Your task to perform on an android device: turn on bluetooth scan Image 0: 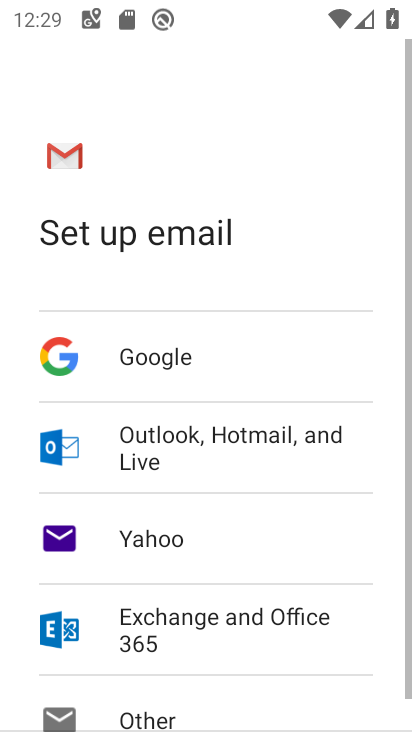
Step 0: press home button
Your task to perform on an android device: turn on bluetooth scan Image 1: 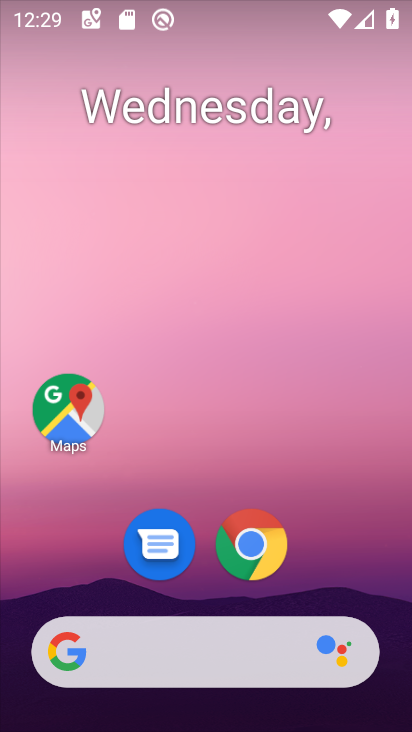
Step 1: drag from (157, 496) to (227, 336)
Your task to perform on an android device: turn on bluetooth scan Image 2: 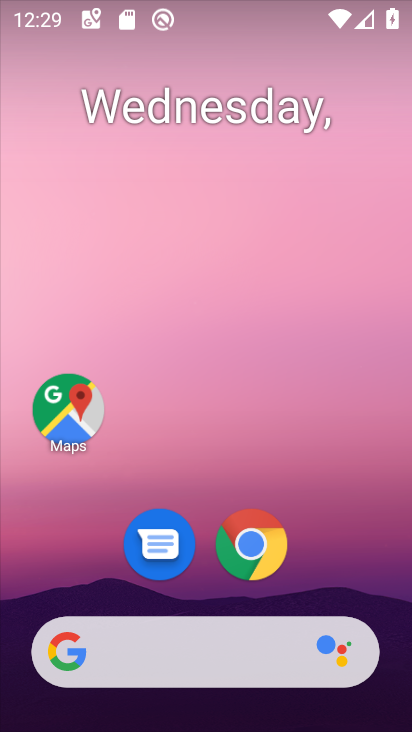
Step 2: drag from (261, 437) to (250, 69)
Your task to perform on an android device: turn on bluetooth scan Image 3: 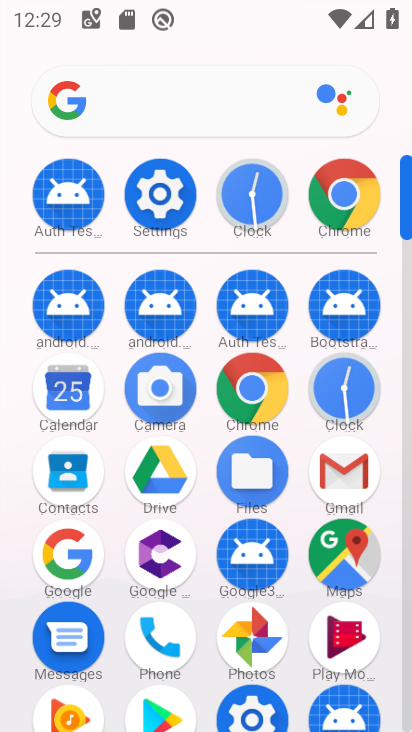
Step 3: drag from (207, 250) to (208, 100)
Your task to perform on an android device: turn on bluetooth scan Image 4: 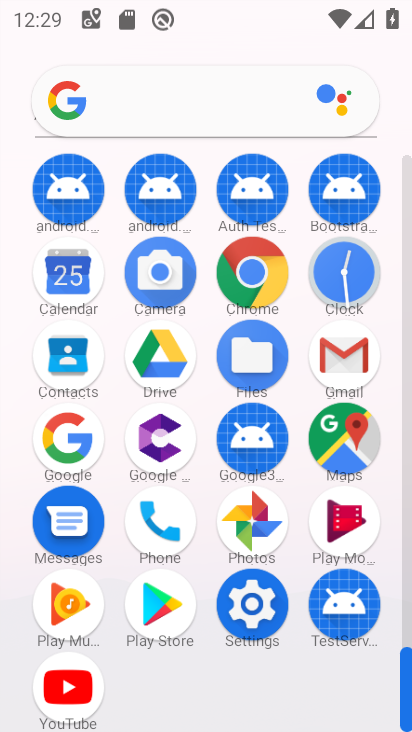
Step 4: click (262, 617)
Your task to perform on an android device: turn on bluetooth scan Image 5: 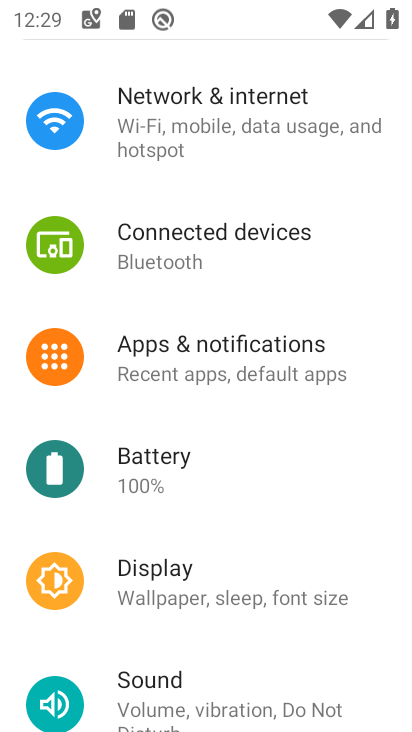
Step 5: drag from (231, 634) to (184, 183)
Your task to perform on an android device: turn on bluetooth scan Image 6: 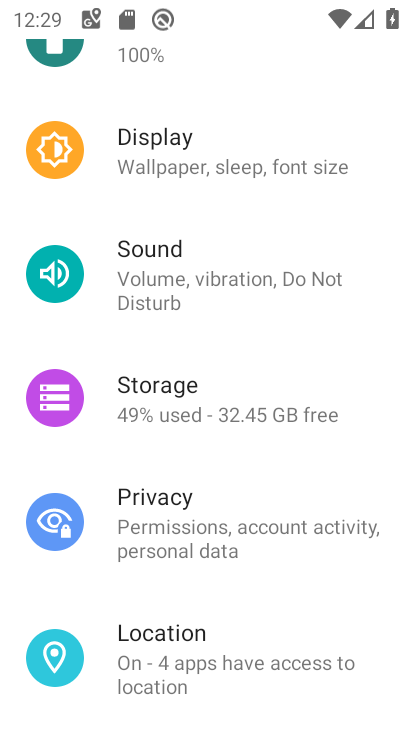
Step 6: drag from (202, 617) to (247, 241)
Your task to perform on an android device: turn on bluetooth scan Image 7: 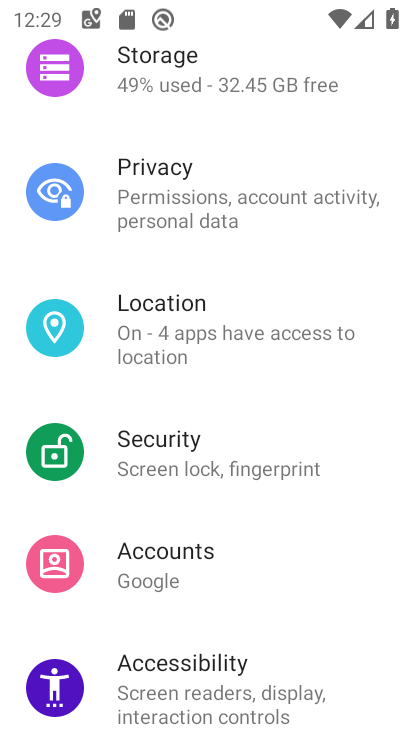
Step 7: drag from (265, 619) to (261, 114)
Your task to perform on an android device: turn on bluetooth scan Image 8: 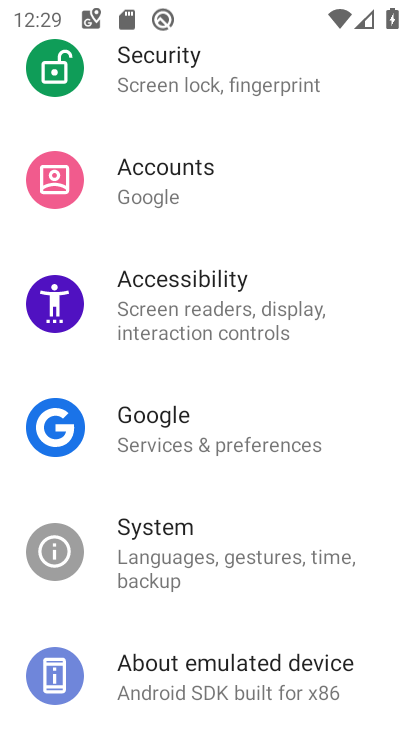
Step 8: drag from (223, 316) to (228, 562)
Your task to perform on an android device: turn on bluetooth scan Image 9: 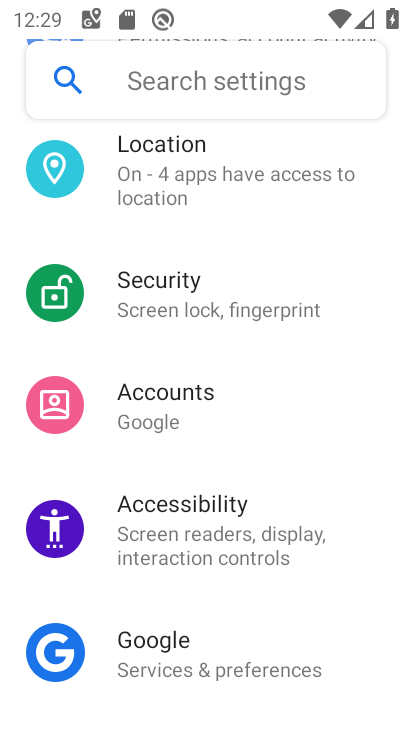
Step 9: click (243, 194)
Your task to perform on an android device: turn on bluetooth scan Image 10: 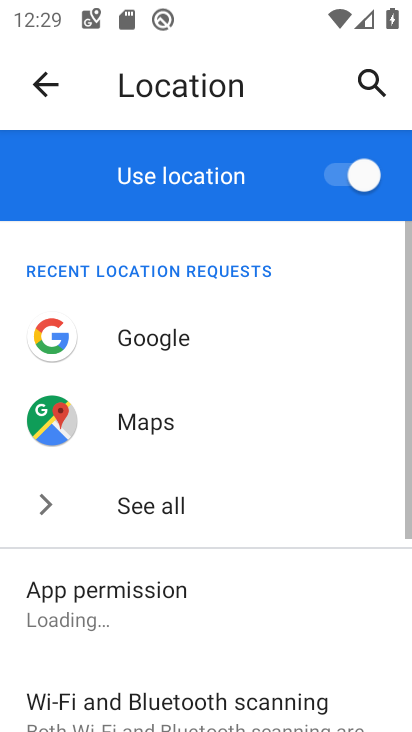
Step 10: drag from (219, 525) to (238, 138)
Your task to perform on an android device: turn on bluetooth scan Image 11: 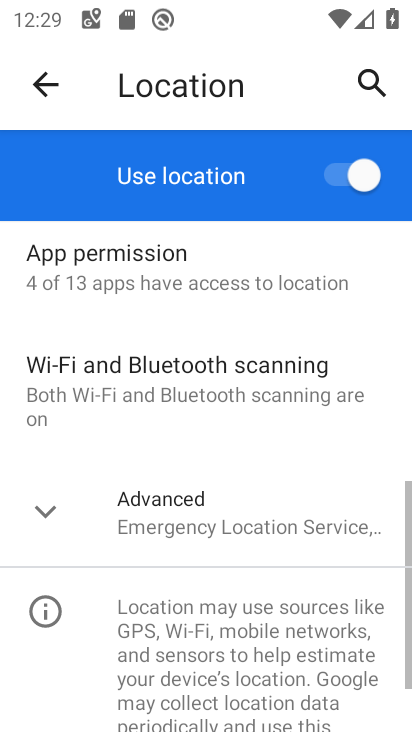
Step 11: click (256, 399)
Your task to perform on an android device: turn on bluetooth scan Image 12: 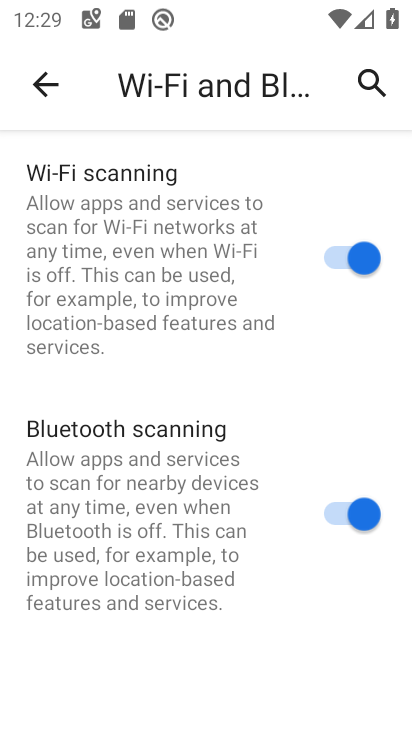
Step 12: task complete